Your task to perform on an android device: Open CNN.com Image 0: 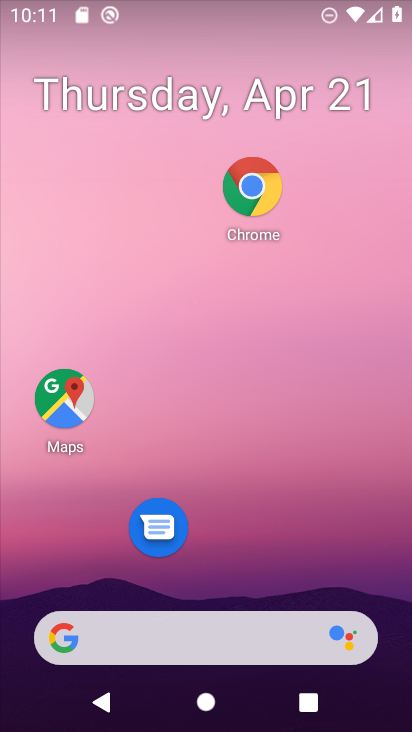
Step 0: click (252, 188)
Your task to perform on an android device: Open CNN.com Image 1: 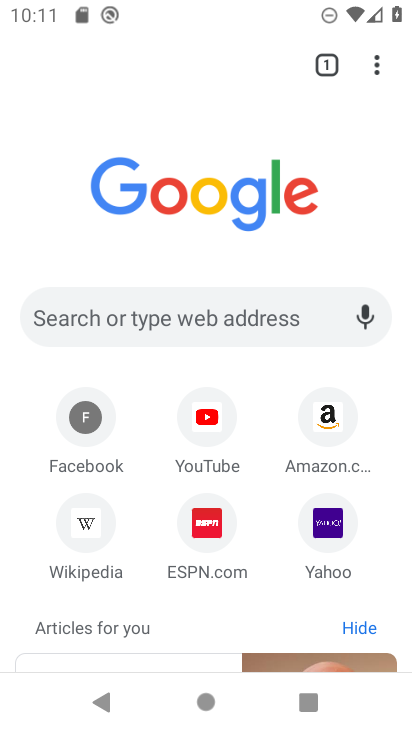
Step 1: click (164, 318)
Your task to perform on an android device: Open CNN.com Image 2: 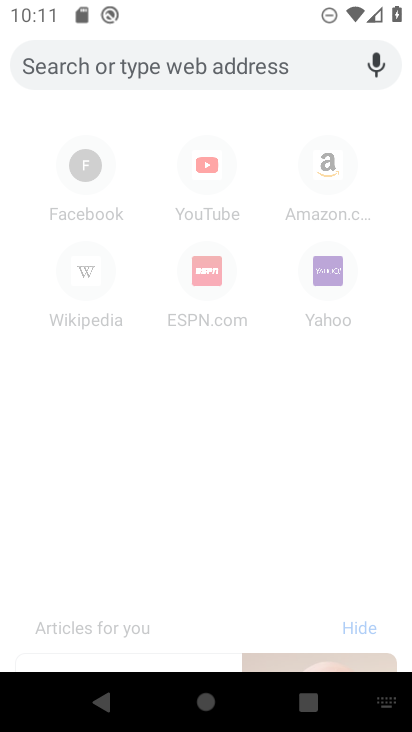
Step 2: type "CNN.com"
Your task to perform on an android device: Open CNN.com Image 3: 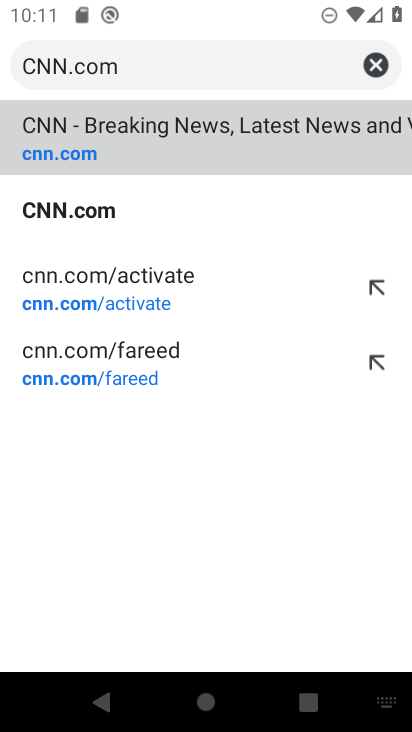
Step 3: click (117, 123)
Your task to perform on an android device: Open CNN.com Image 4: 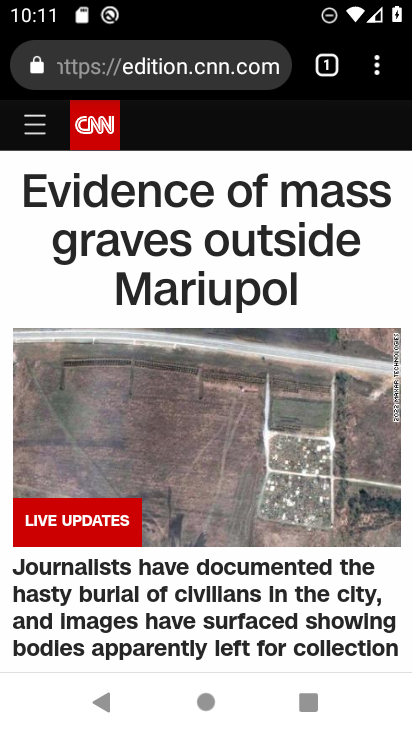
Step 4: task complete